Your task to perform on an android device: set default search engine in the chrome app Image 0: 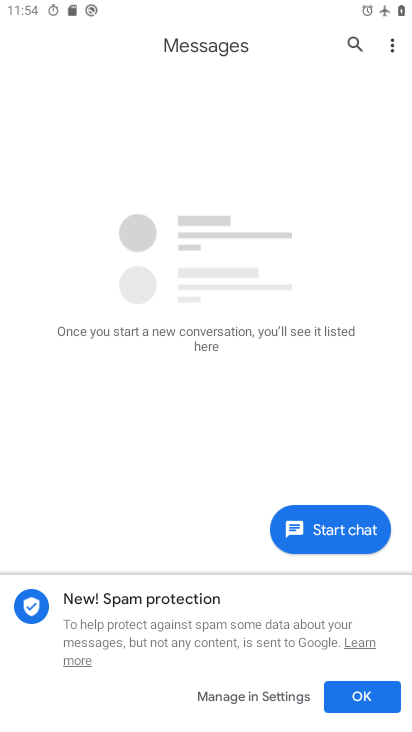
Step 0: press back button
Your task to perform on an android device: set default search engine in the chrome app Image 1: 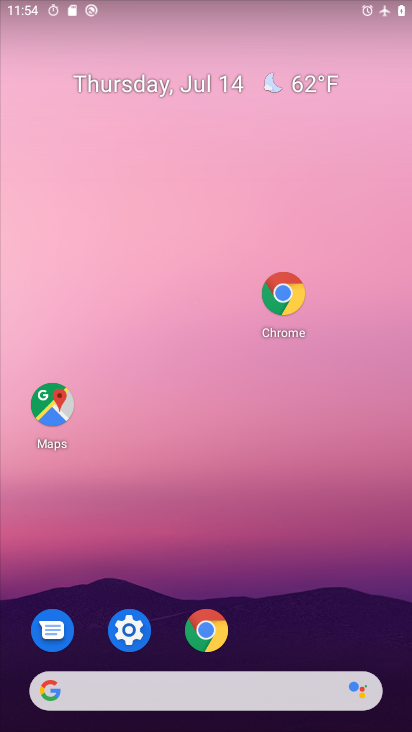
Step 1: drag from (230, 611) to (151, 142)
Your task to perform on an android device: set default search engine in the chrome app Image 2: 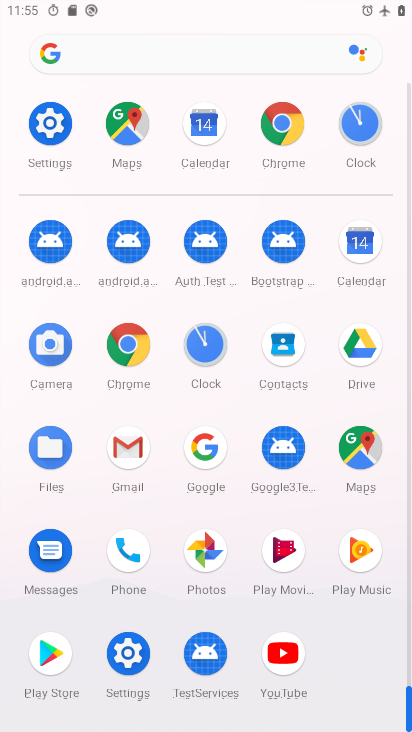
Step 2: click (127, 349)
Your task to perform on an android device: set default search engine in the chrome app Image 3: 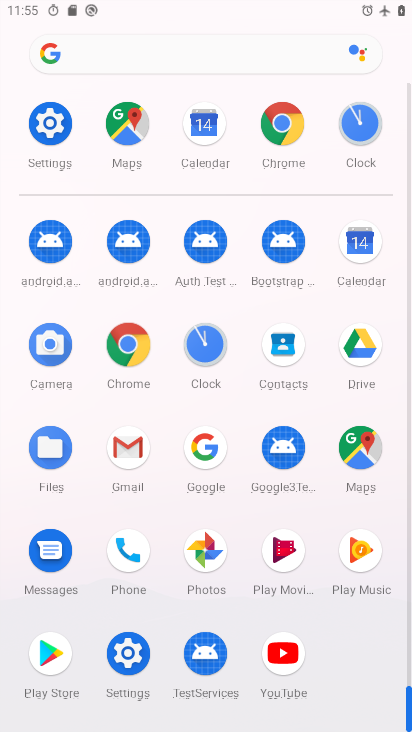
Step 3: click (127, 349)
Your task to perform on an android device: set default search engine in the chrome app Image 4: 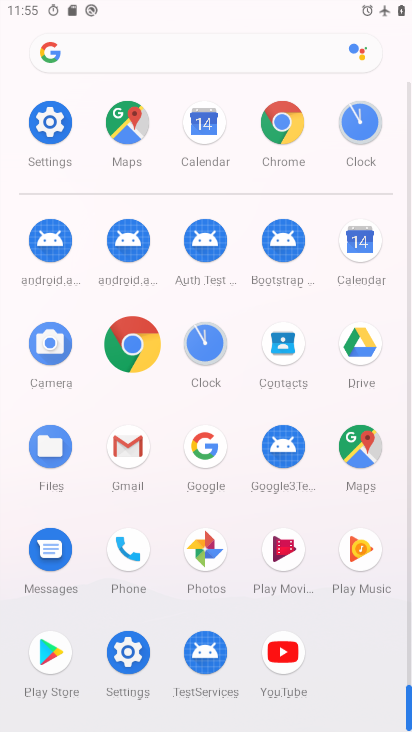
Step 4: click (128, 349)
Your task to perform on an android device: set default search engine in the chrome app Image 5: 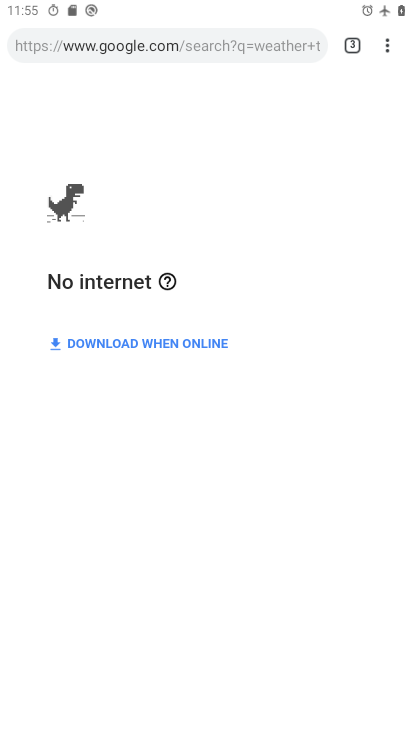
Step 5: drag from (388, 49) to (224, 559)
Your task to perform on an android device: set default search engine in the chrome app Image 6: 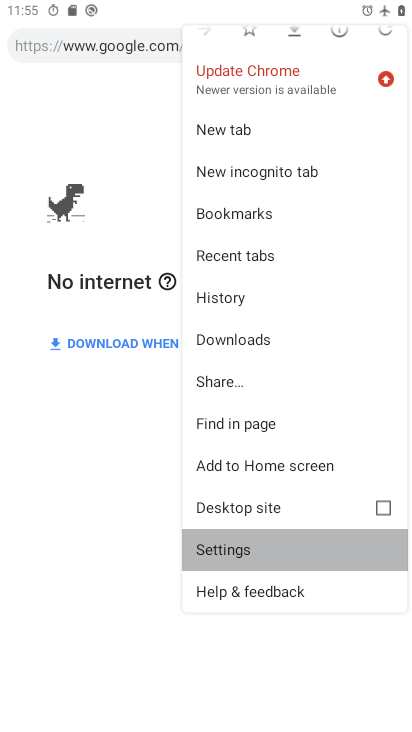
Step 6: click (229, 557)
Your task to perform on an android device: set default search engine in the chrome app Image 7: 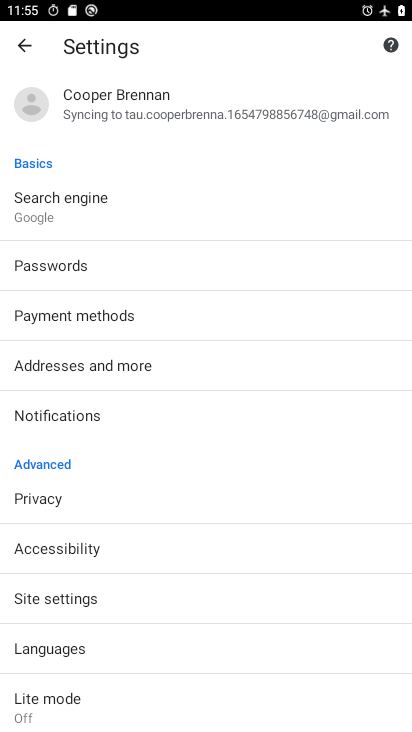
Step 7: click (43, 594)
Your task to perform on an android device: set default search engine in the chrome app Image 8: 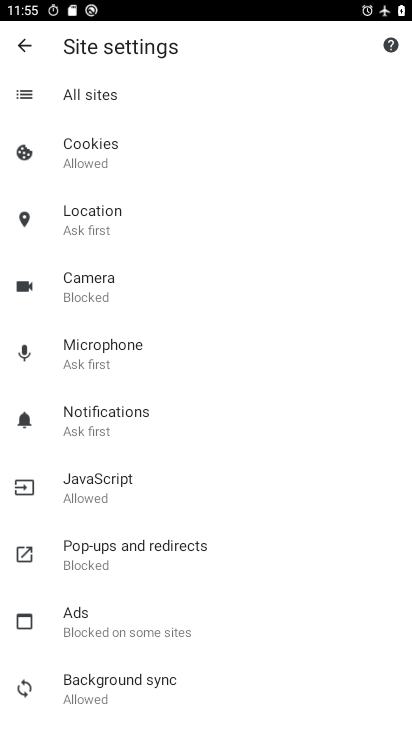
Step 8: click (25, 58)
Your task to perform on an android device: set default search engine in the chrome app Image 9: 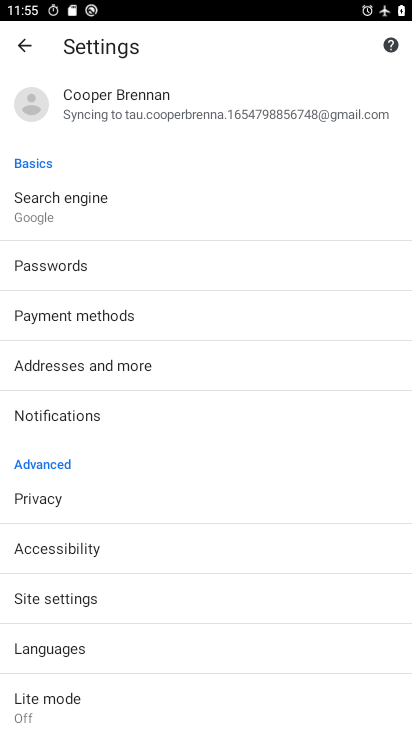
Step 9: click (44, 203)
Your task to perform on an android device: set default search engine in the chrome app Image 10: 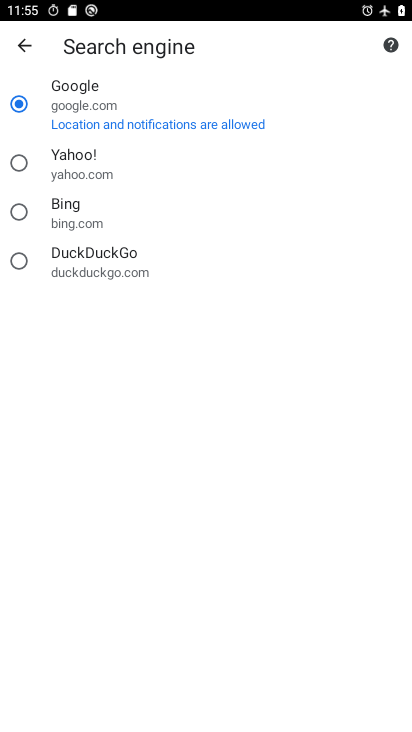
Step 10: click (15, 151)
Your task to perform on an android device: set default search engine in the chrome app Image 11: 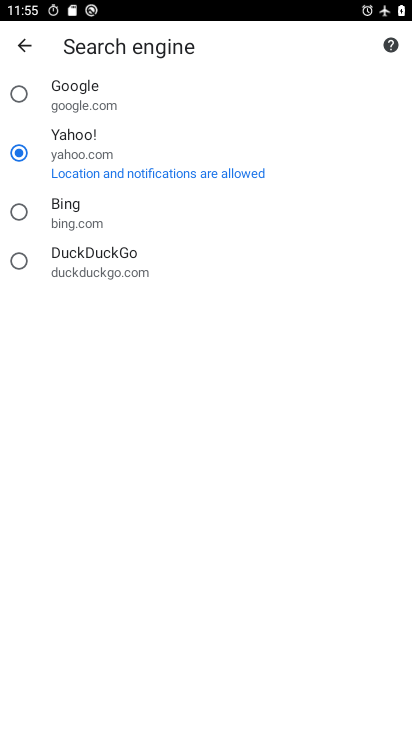
Step 11: task complete